Your task to perform on an android device: Play the last video I watched on Youtube Image 0: 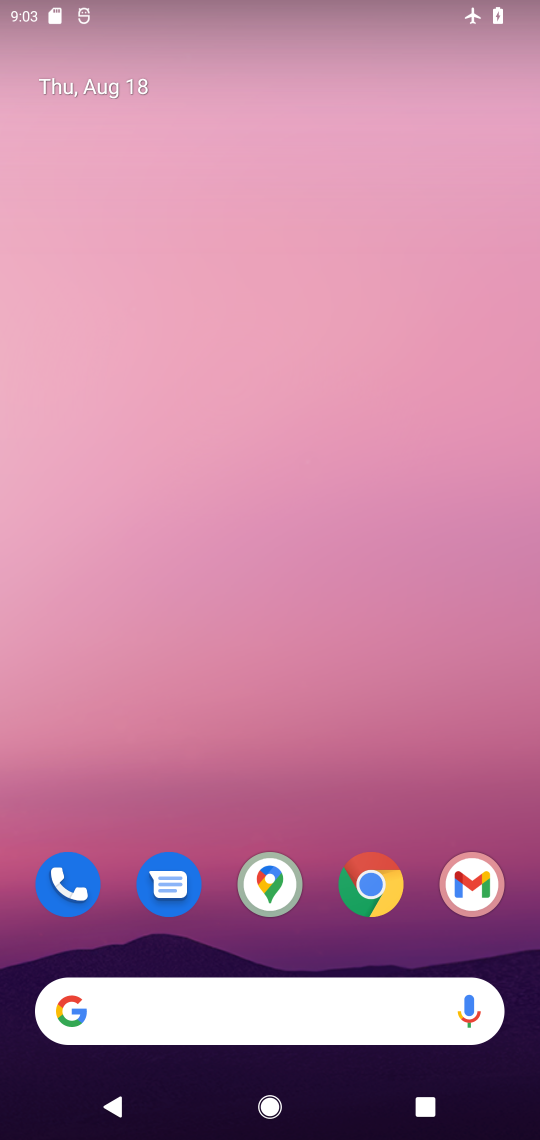
Step 0: drag from (190, 959) to (248, 36)
Your task to perform on an android device: Play the last video I watched on Youtube Image 1: 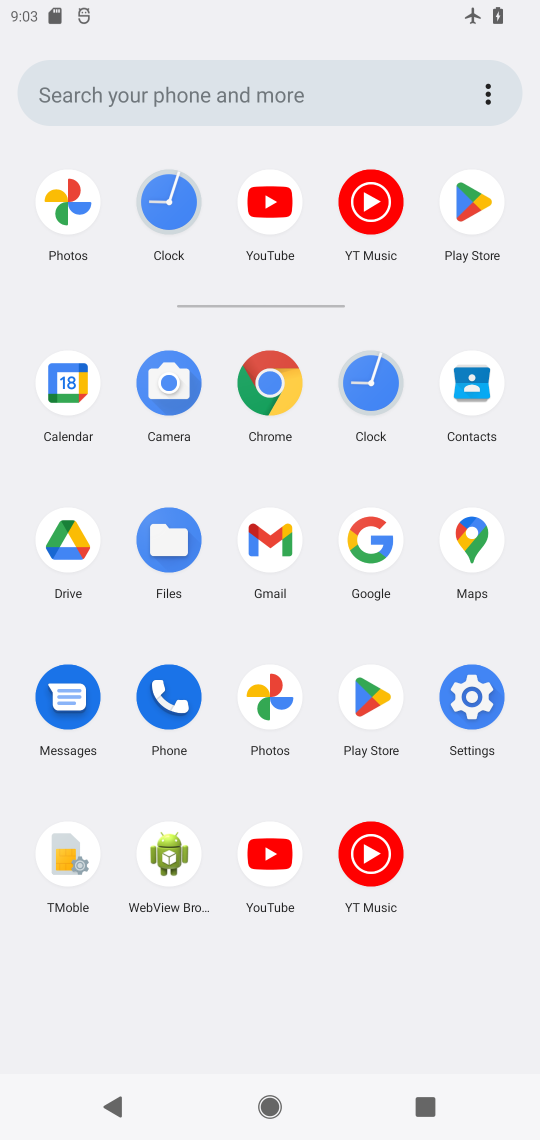
Step 1: click (279, 198)
Your task to perform on an android device: Play the last video I watched on Youtube Image 2: 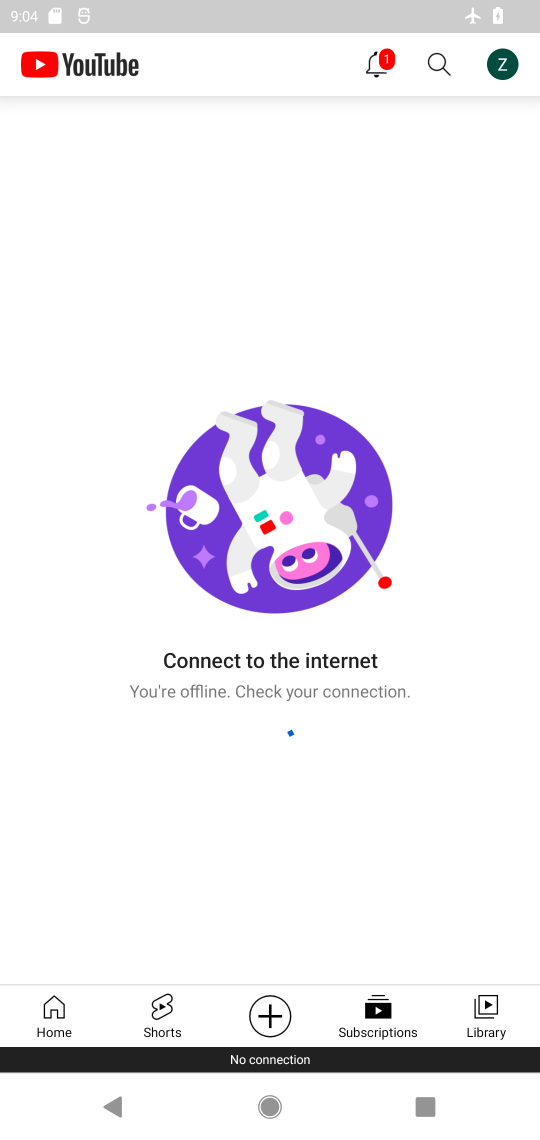
Step 2: drag from (411, 7) to (428, 943)
Your task to perform on an android device: Play the last video I watched on Youtube Image 3: 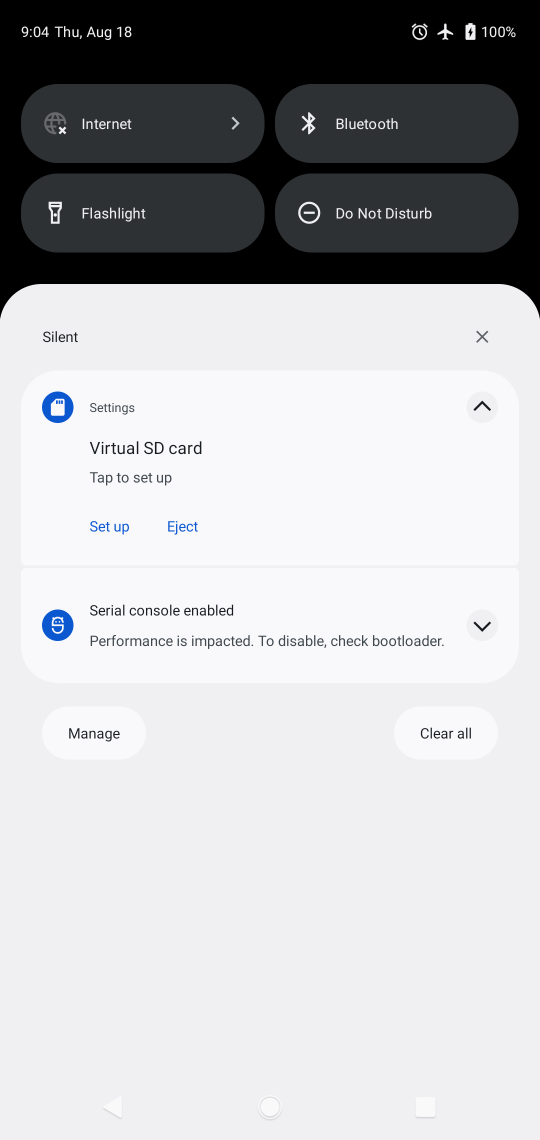
Step 3: drag from (250, 74) to (314, 1095)
Your task to perform on an android device: Play the last video I watched on Youtube Image 4: 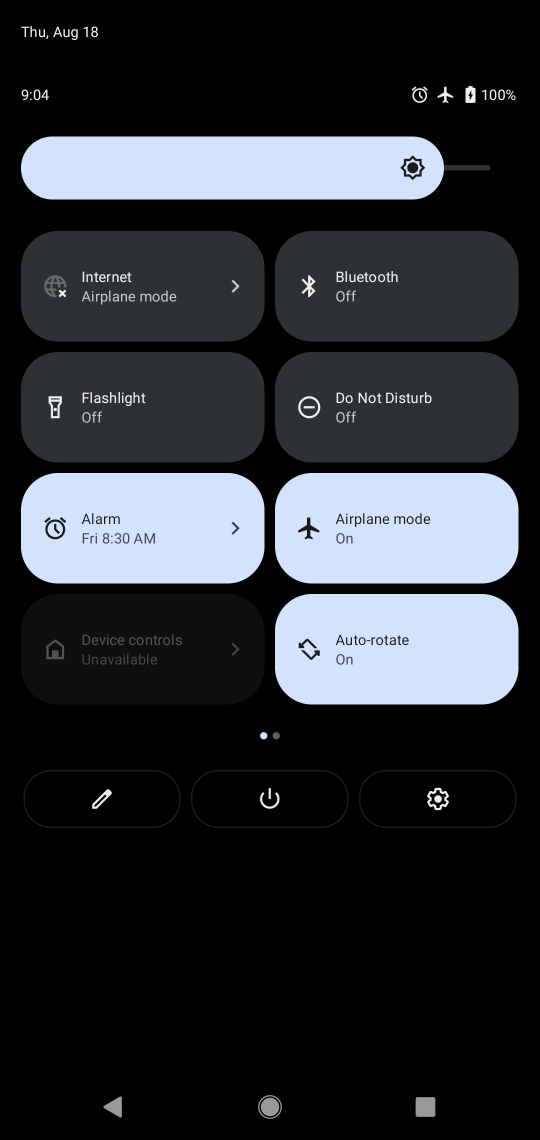
Step 4: click (346, 523)
Your task to perform on an android device: Play the last video I watched on Youtube Image 5: 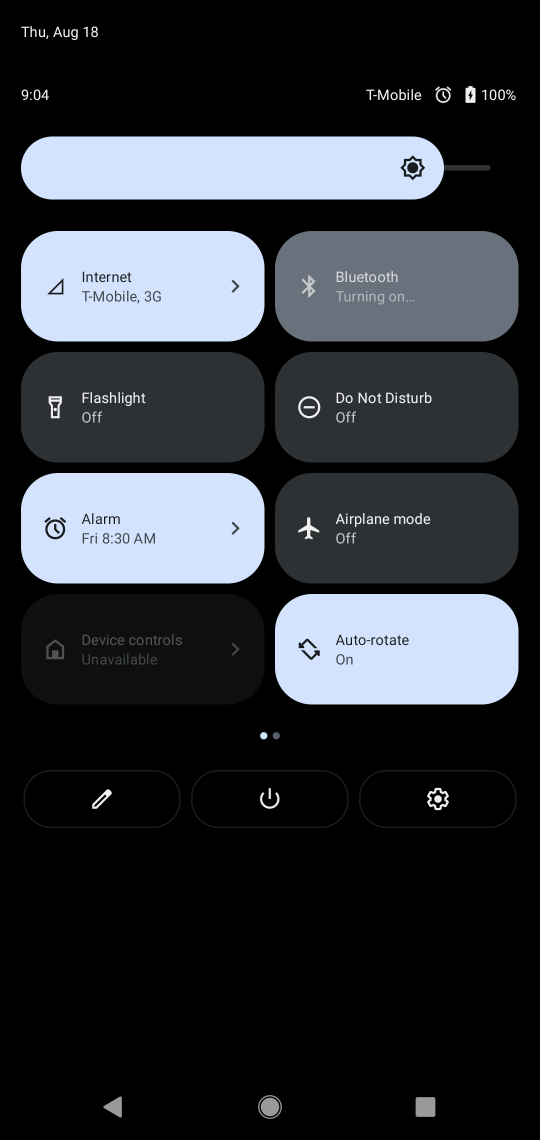
Step 5: task complete